Your task to perform on an android device: Search for 'The Girl on the Train' on Goodreads. Image 0: 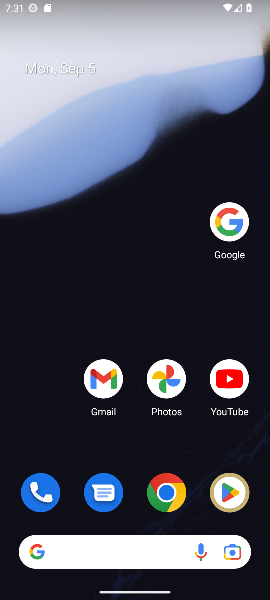
Step 0: click (228, 215)
Your task to perform on an android device: Search for 'The Girl on the Train' on Goodreads. Image 1: 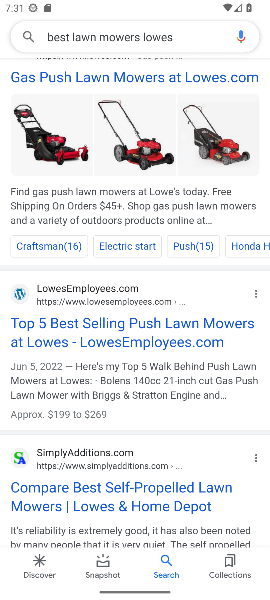
Step 1: click (161, 31)
Your task to perform on an android device: Search for 'The Girl on the Train' on Goodreads. Image 2: 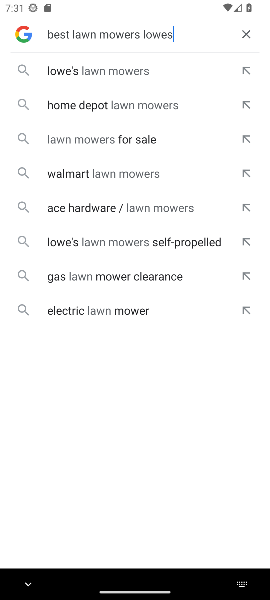
Step 2: click (234, 34)
Your task to perform on an android device: Search for 'The Girl on the Train' on Goodreads. Image 3: 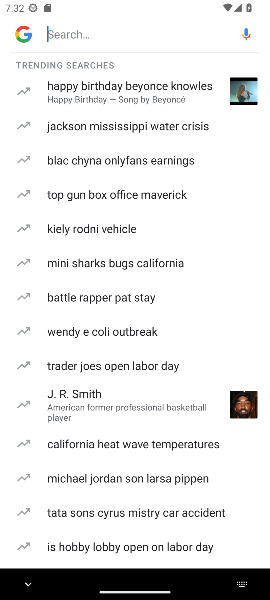
Step 3: click (128, 32)
Your task to perform on an android device: Search for 'The Girl on the Train' on Goodreads. Image 4: 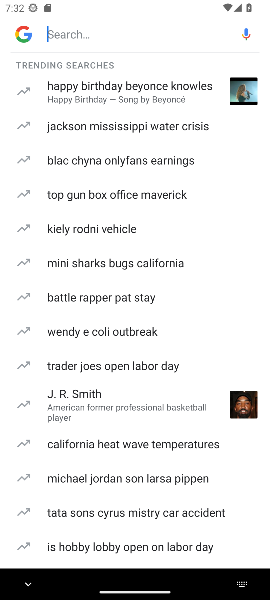
Step 4: type "'The Girl on the Train' on Goodreads "
Your task to perform on an android device: Search for 'The Girl on the Train' on Goodreads. Image 5: 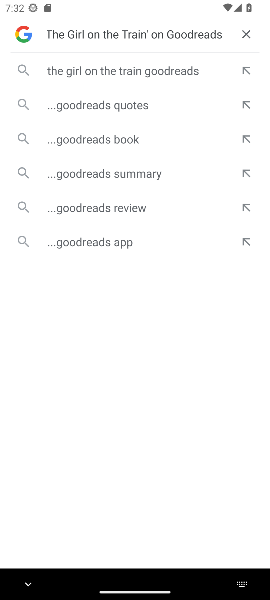
Step 5: click (92, 79)
Your task to perform on an android device: Search for 'The Girl on the Train' on Goodreads. Image 6: 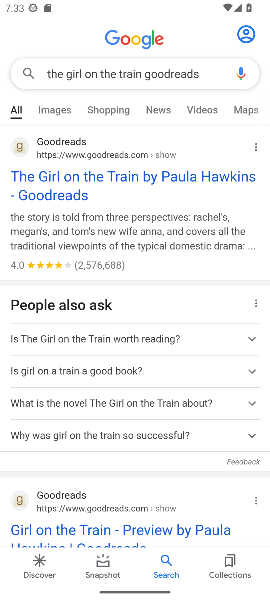
Step 6: click (64, 188)
Your task to perform on an android device: Search for 'The Girl on the Train' on Goodreads. Image 7: 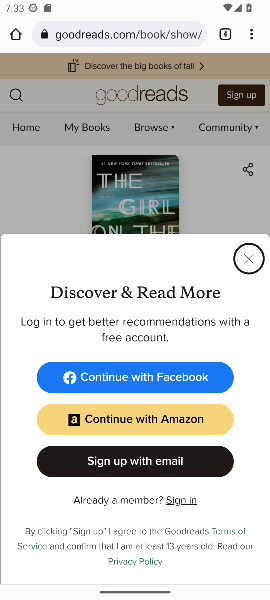
Step 7: click (261, 261)
Your task to perform on an android device: Search for 'The Girl on the Train' on Goodreads. Image 8: 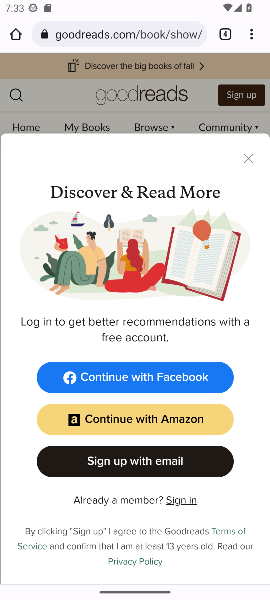
Step 8: click (246, 165)
Your task to perform on an android device: Search for 'The Girl on the Train' on Goodreads. Image 9: 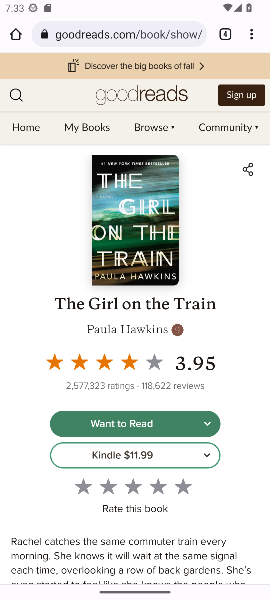
Step 9: task complete